Your task to perform on an android device: delete browsing data in the chrome app Image 0: 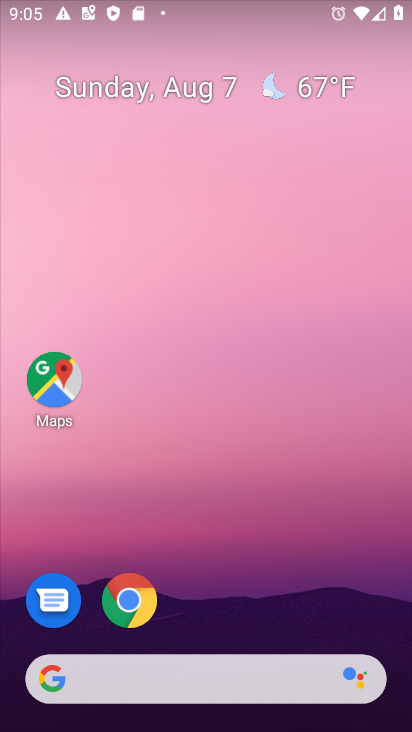
Step 0: click (134, 614)
Your task to perform on an android device: delete browsing data in the chrome app Image 1: 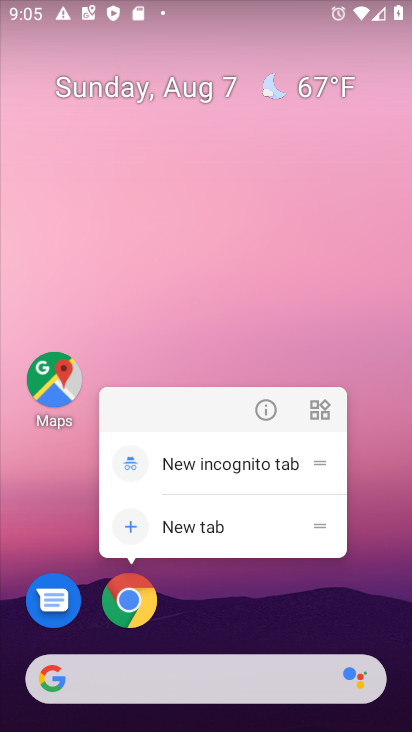
Step 1: click (122, 607)
Your task to perform on an android device: delete browsing data in the chrome app Image 2: 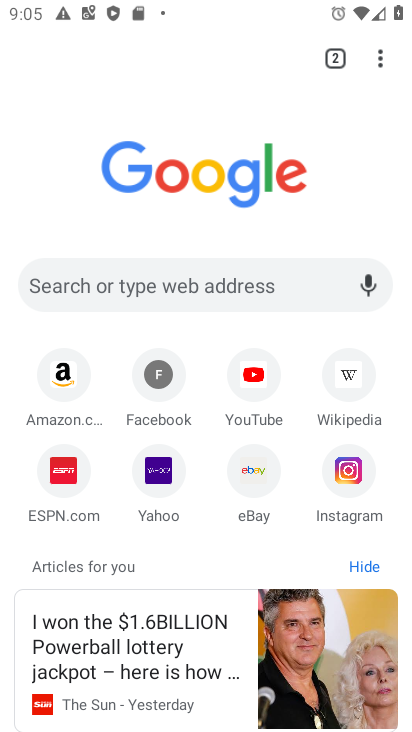
Step 2: click (376, 67)
Your task to perform on an android device: delete browsing data in the chrome app Image 3: 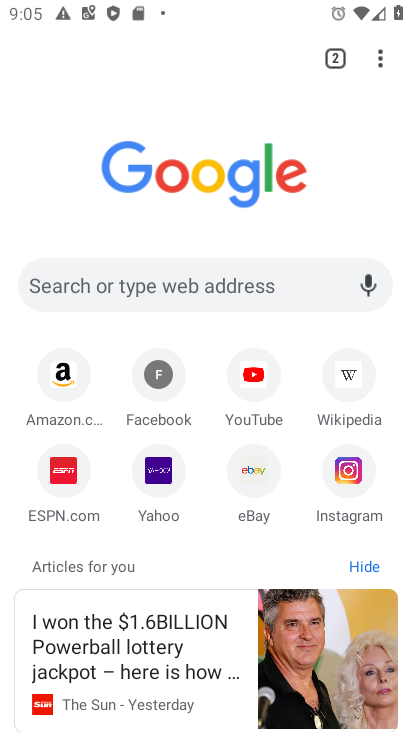
Step 3: click (378, 61)
Your task to perform on an android device: delete browsing data in the chrome app Image 4: 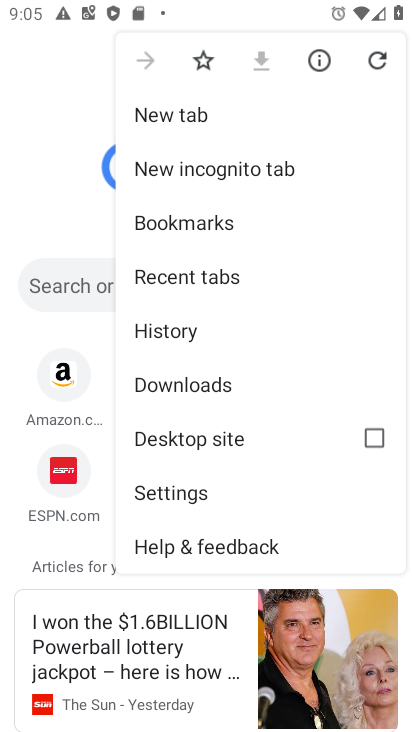
Step 4: click (165, 330)
Your task to perform on an android device: delete browsing data in the chrome app Image 5: 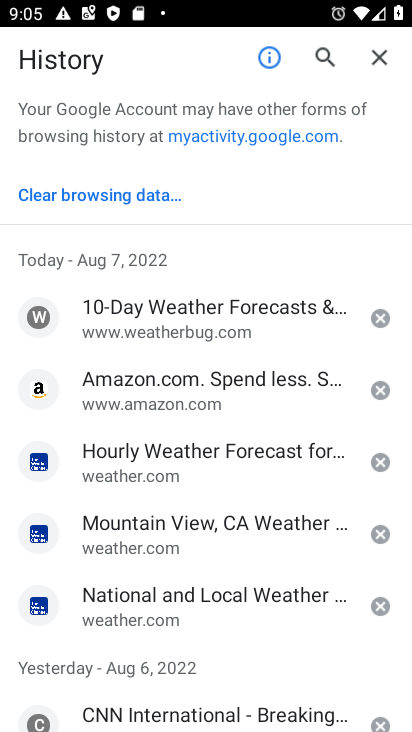
Step 5: click (113, 189)
Your task to perform on an android device: delete browsing data in the chrome app Image 6: 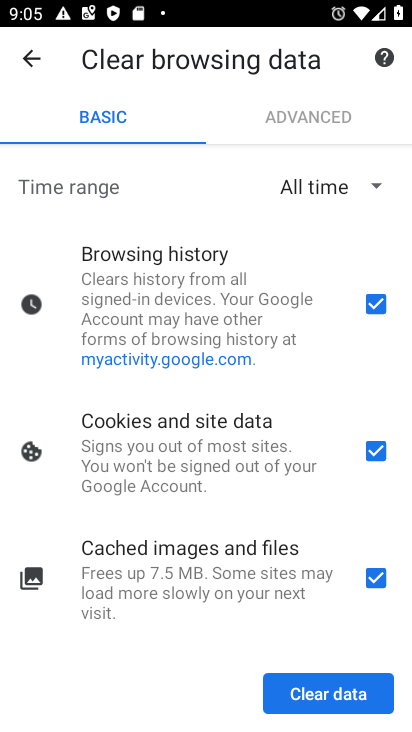
Step 6: click (298, 704)
Your task to perform on an android device: delete browsing data in the chrome app Image 7: 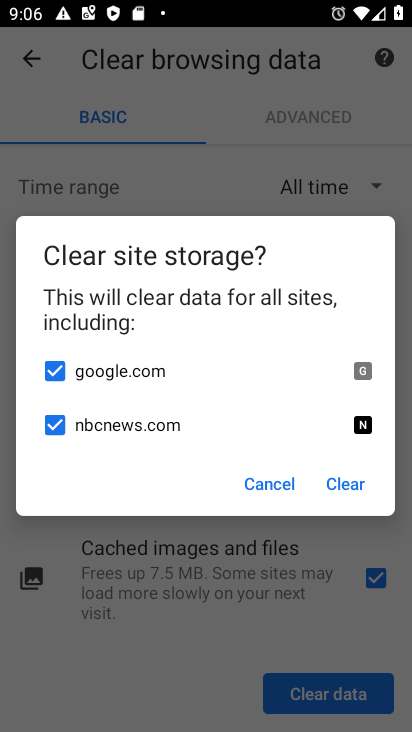
Step 7: click (344, 480)
Your task to perform on an android device: delete browsing data in the chrome app Image 8: 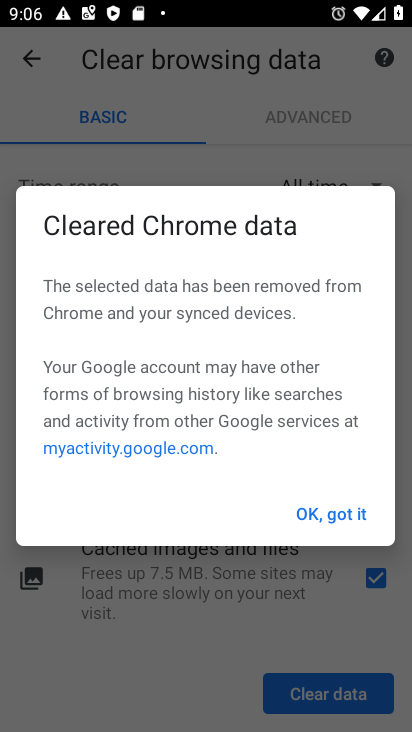
Step 8: click (339, 523)
Your task to perform on an android device: delete browsing data in the chrome app Image 9: 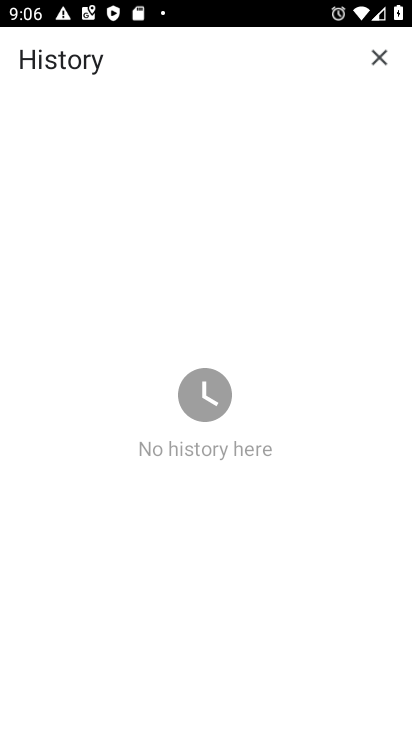
Step 9: task complete